Your task to perform on an android device: turn on showing notifications on the lock screen Image 0: 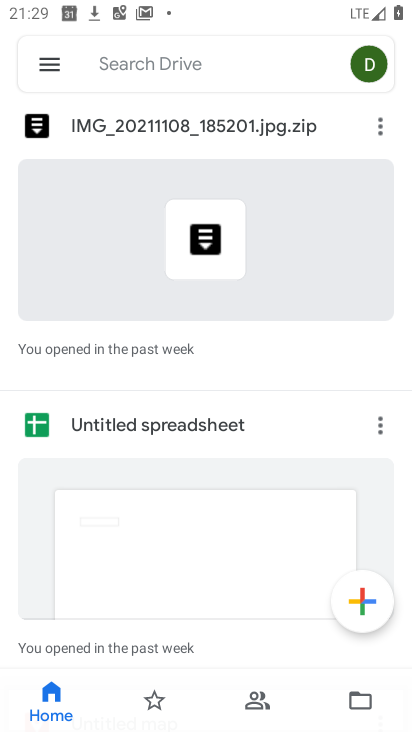
Step 0: press home button
Your task to perform on an android device: turn on showing notifications on the lock screen Image 1: 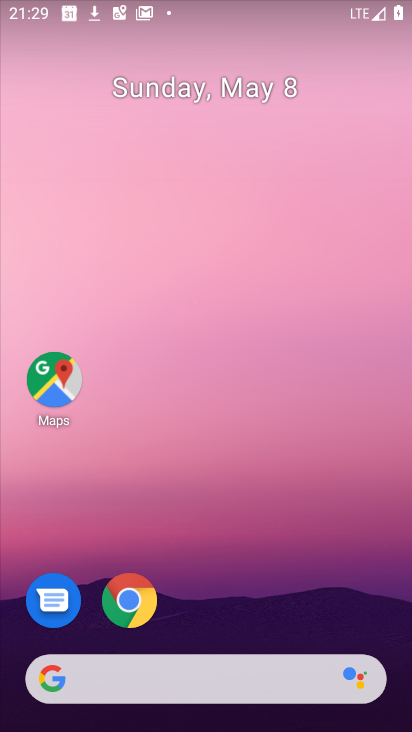
Step 1: drag from (323, 703) to (249, 407)
Your task to perform on an android device: turn on showing notifications on the lock screen Image 2: 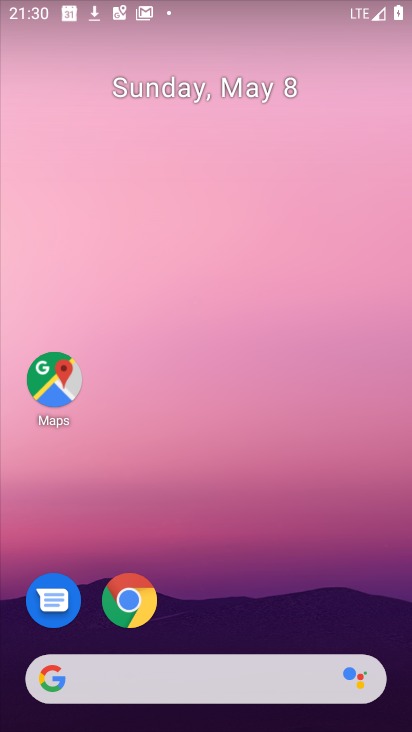
Step 2: drag from (281, 704) to (204, 281)
Your task to perform on an android device: turn on showing notifications on the lock screen Image 3: 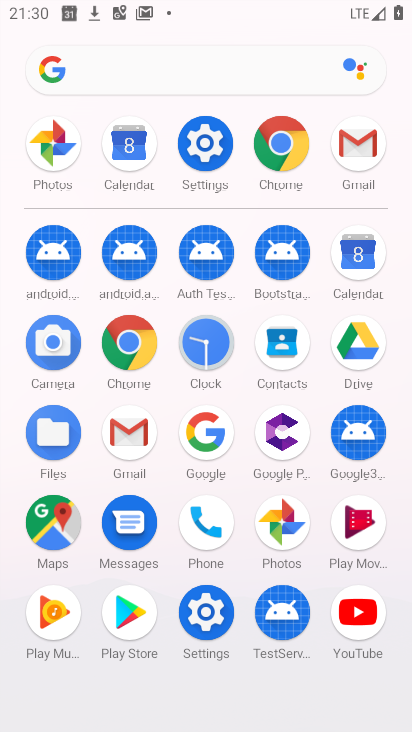
Step 3: click (196, 143)
Your task to perform on an android device: turn on showing notifications on the lock screen Image 4: 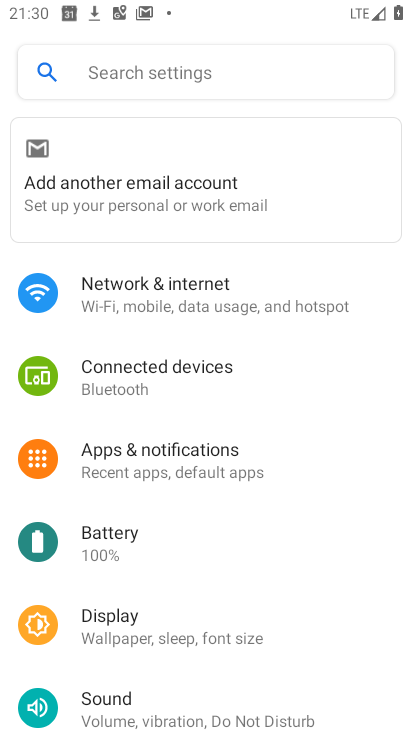
Step 4: click (193, 78)
Your task to perform on an android device: turn on showing notifications on the lock screen Image 5: 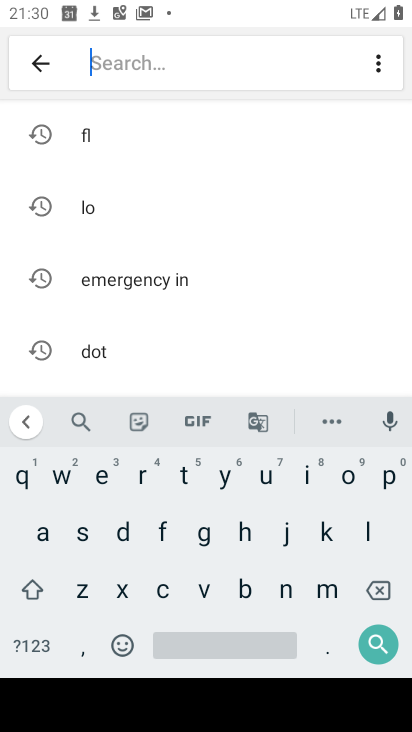
Step 5: click (282, 586)
Your task to perform on an android device: turn on showing notifications on the lock screen Image 6: 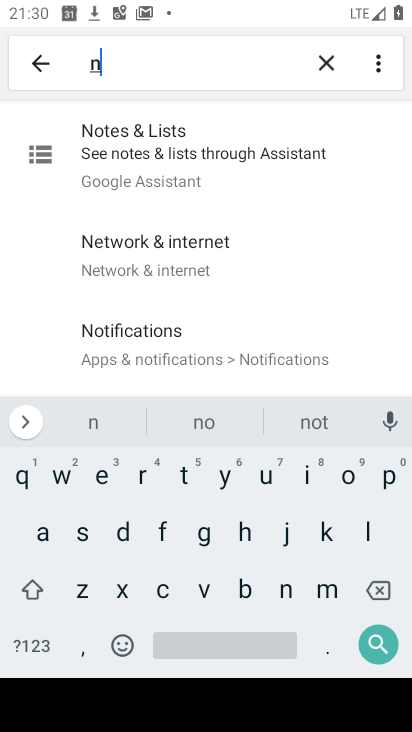
Step 6: click (342, 477)
Your task to perform on an android device: turn on showing notifications on the lock screen Image 7: 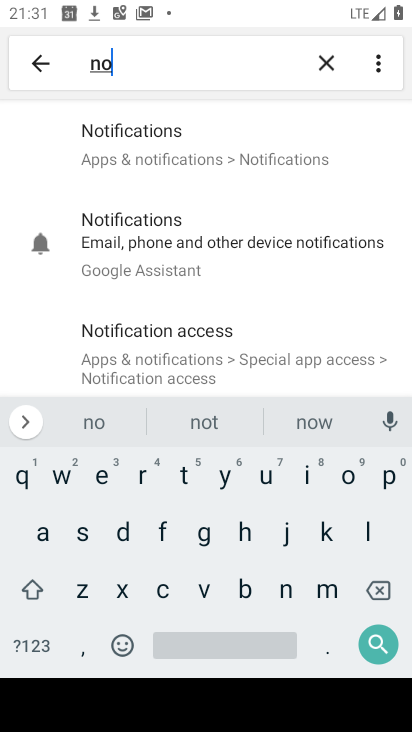
Step 7: click (143, 138)
Your task to perform on an android device: turn on showing notifications on the lock screen Image 8: 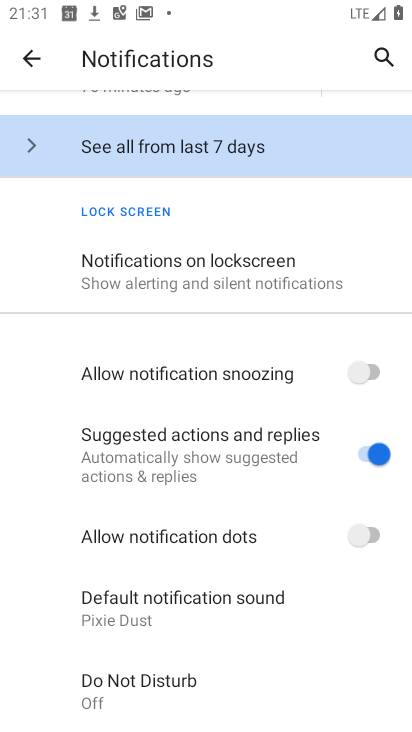
Step 8: click (213, 277)
Your task to perform on an android device: turn on showing notifications on the lock screen Image 9: 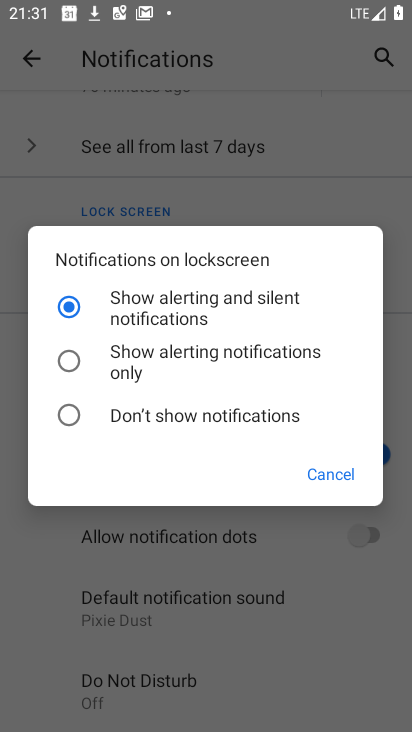
Step 9: task complete